Your task to perform on an android device: Open Google Chrome and open the bookmarks view Image 0: 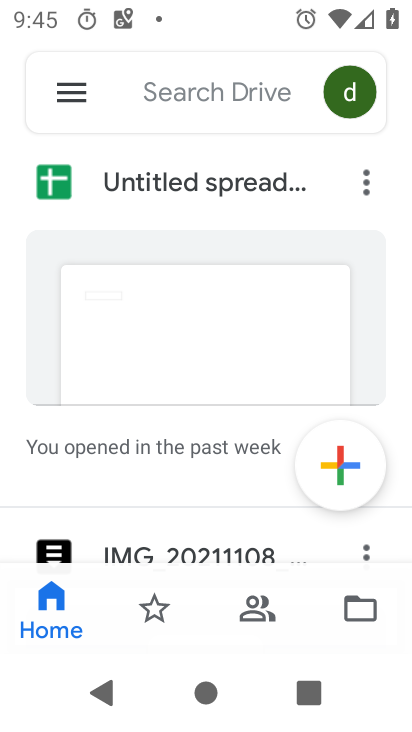
Step 0: task complete